Your task to perform on an android device: turn on priority inbox in the gmail app Image 0: 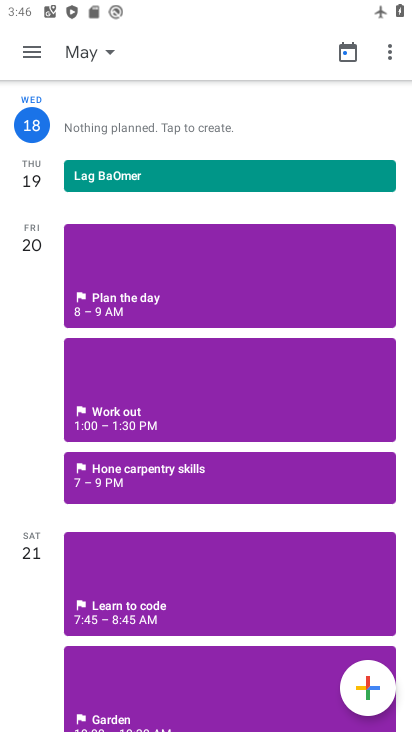
Step 0: press home button
Your task to perform on an android device: turn on priority inbox in the gmail app Image 1: 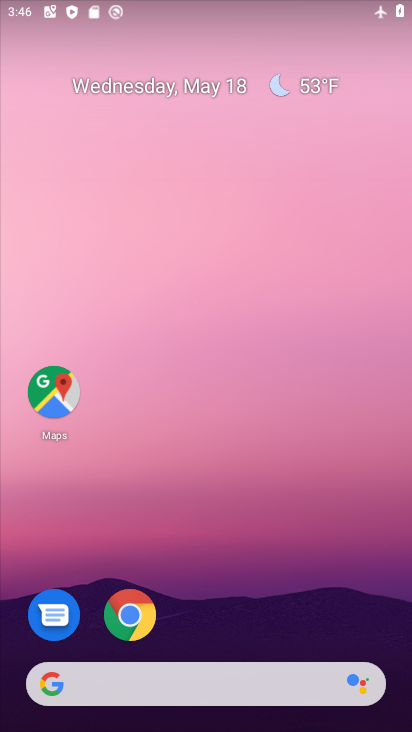
Step 1: drag from (284, 613) to (286, 146)
Your task to perform on an android device: turn on priority inbox in the gmail app Image 2: 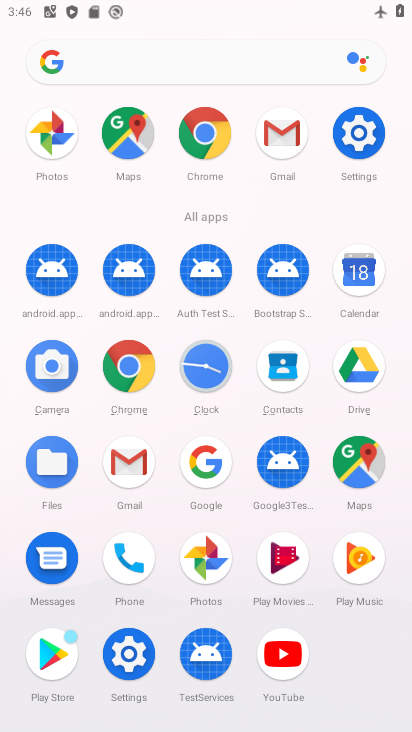
Step 2: click (291, 133)
Your task to perform on an android device: turn on priority inbox in the gmail app Image 3: 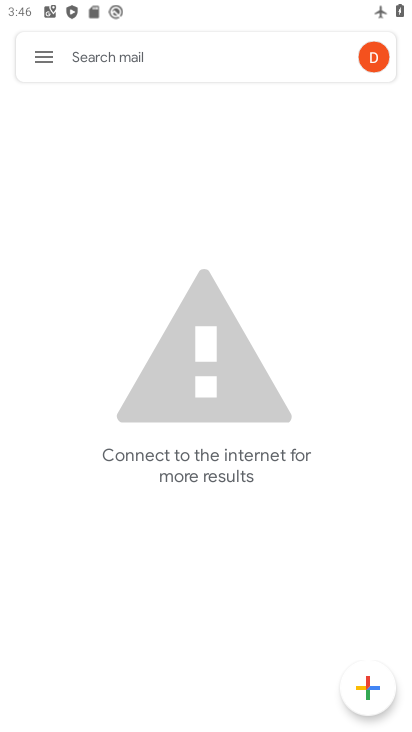
Step 3: click (25, 57)
Your task to perform on an android device: turn on priority inbox in the gmail app Image 4: 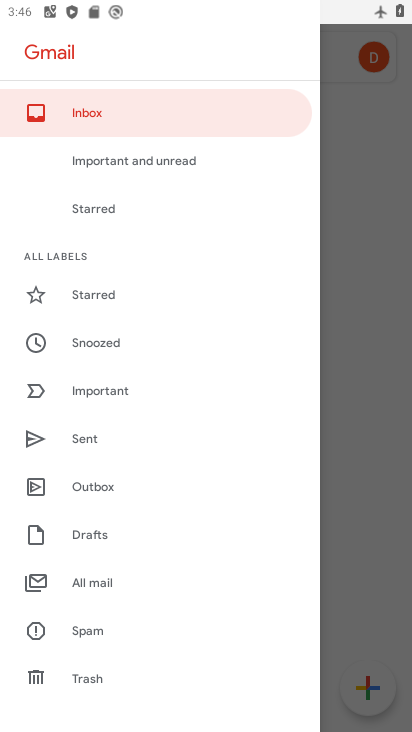
Step 4: drag from (114, 677) to (230, 316)
Your task to perform on an android device: turn on priority inbox in the gmail app Image 5: 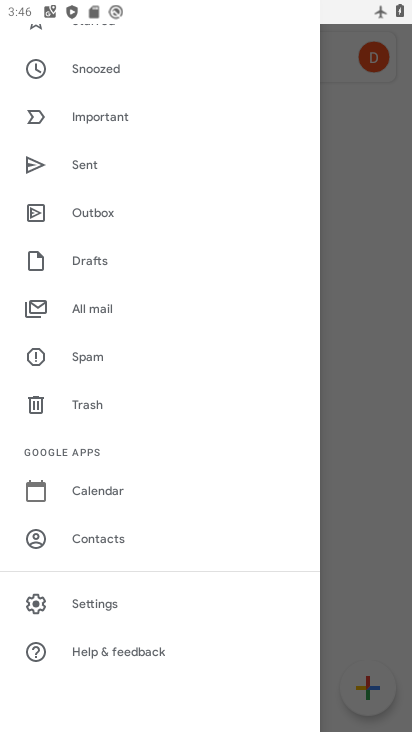
Step 5: click (94, 600)
Your task to perform on an android device: turn on priority inbox in the gmail app Image 6: 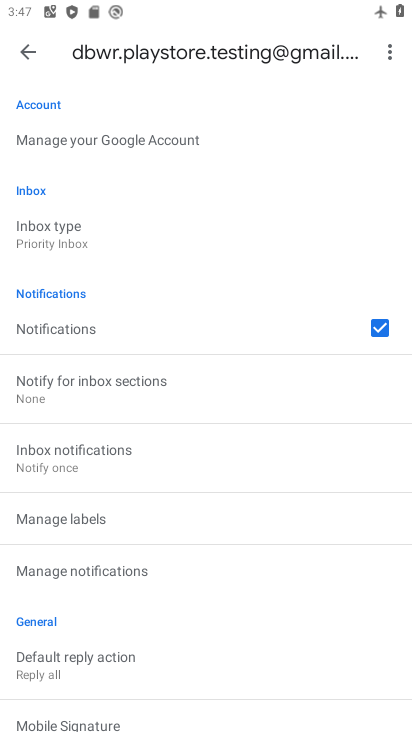
Step 6: click (100, 229)
Your task to perform on an android device: turn on priority inbox in the gmail app Image 7: 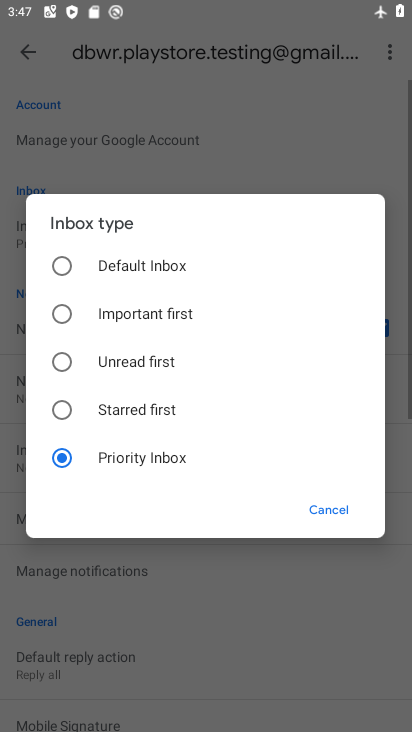
Step 7: task complete